Your task to perform on an android device: turn on data saver in the chrome app Image 0: 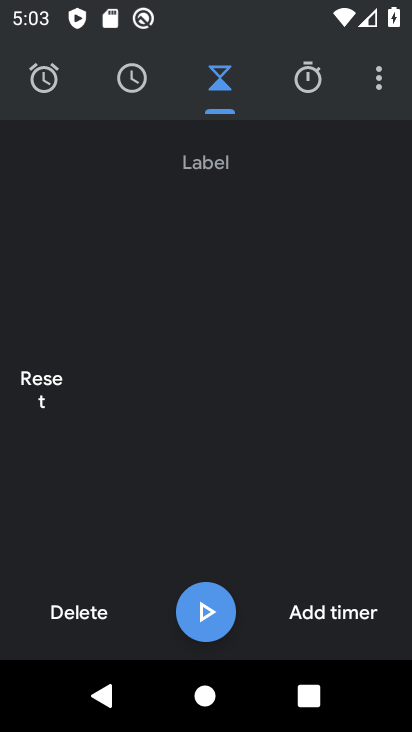
Step 0: press back button
Your task to perform on an android device: turn on data saver in the chrome app Image 1: 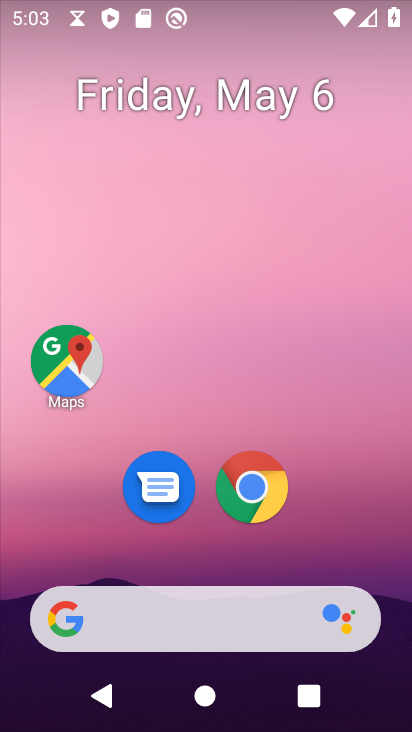
Step 1: click (248, 486)
Your task to perform on an android device: turn on data saver in the chrome app Image 2: 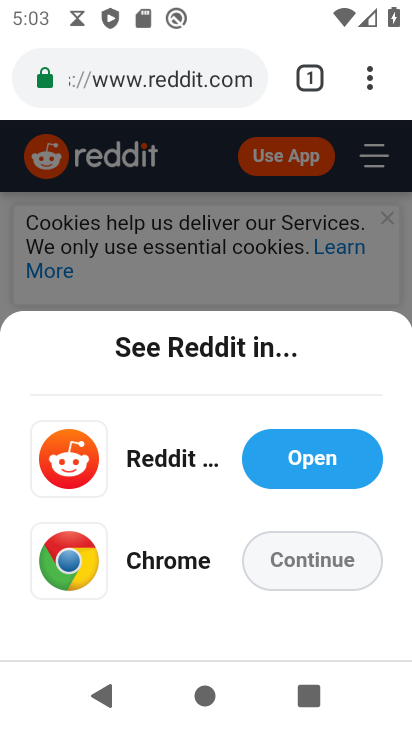
Step 2: click (370, 78)
Your task to perform on an android device: turn on data saver in the chrome app Image 3: 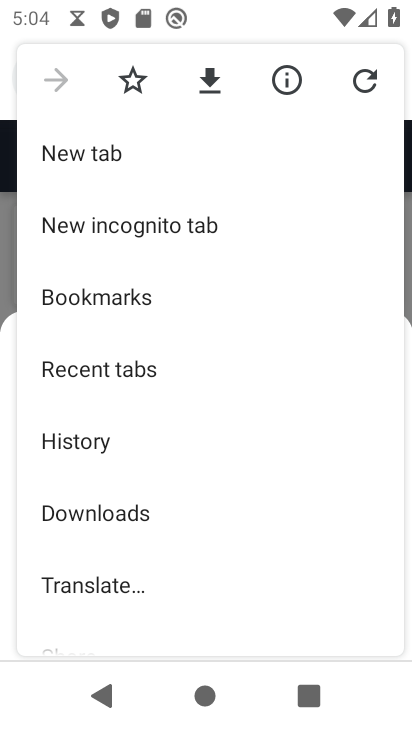
Step 3: drag from (137, 487) to (190, 336)
Your task to perform on an android device: turn on data saver in the chrome app Image 4: 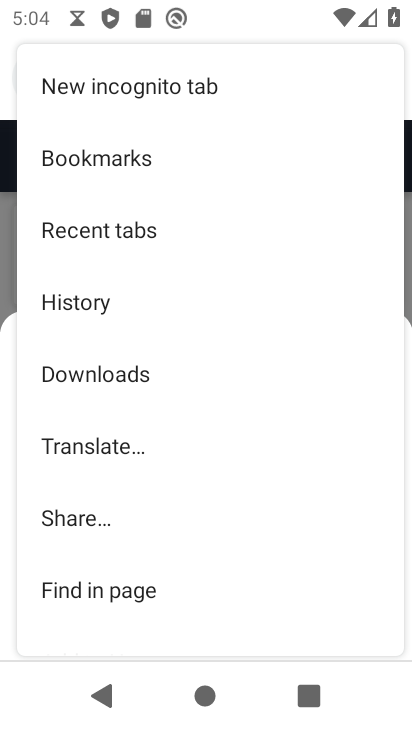
Step 4: drag from (141, 495) to (197, 350)
Your task to perform on an android device: turn on data saver in the chrome app Image 5: 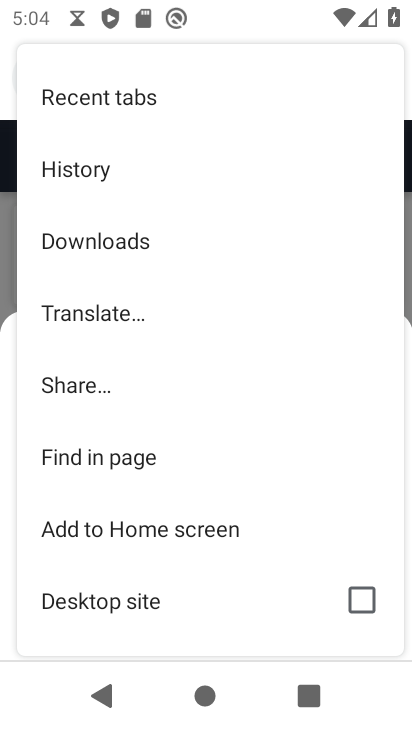
Step 5: drag from (118, 561) to (150, 379)
Your task to perform on an android device: turn on data saver in the chrome app Image 6: 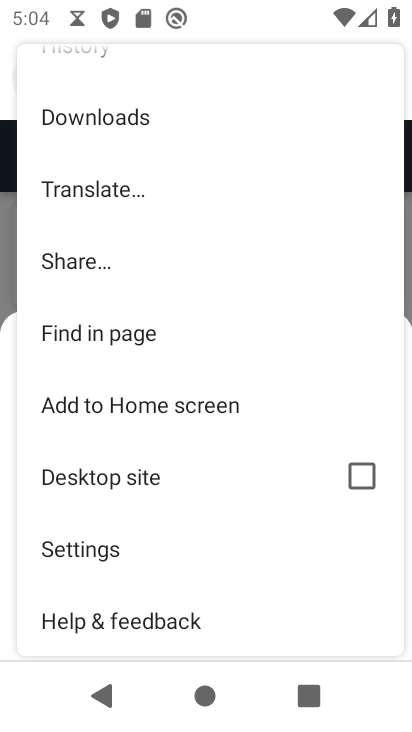
Step 6: drag from (111, 505) to (148, 375)
Your task to perform on an android device: turn on data saver in the chrome app Image 7: 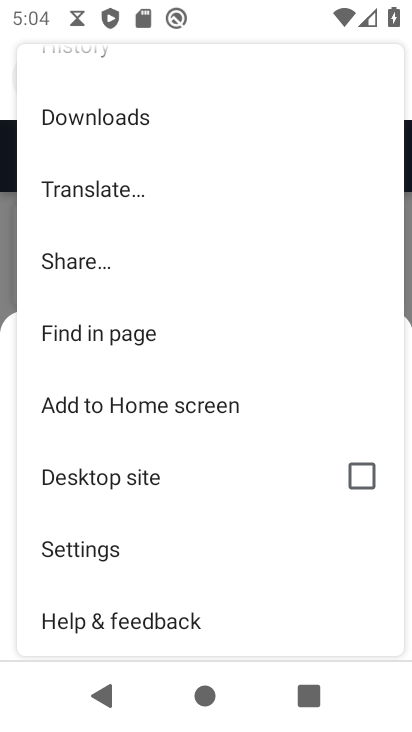
Step 7: click (81, 557)
Your task to perform on an android device: turn on data saver in the chrome app Image 8: 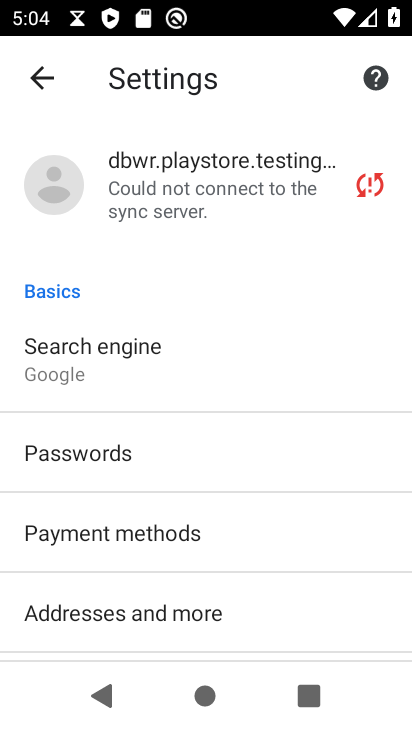
Step 8: drag from (142, 500) to (215, 348)
Your task to perform on an android device: turn on data saver in the chrome app Image 9: 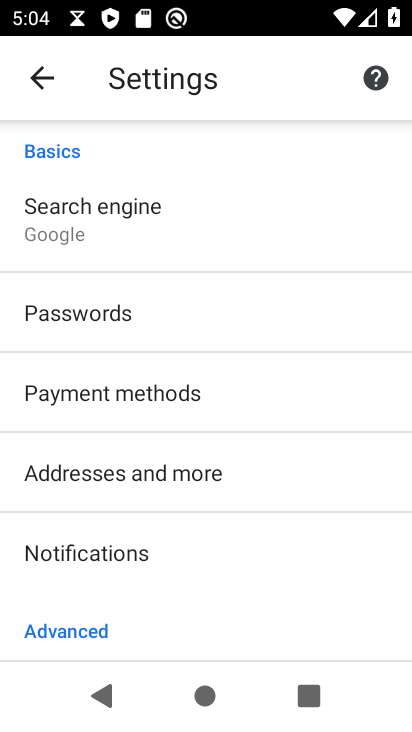
Step 9: drag from (136, 575) to (185, 419)
Your task to perform on an android device: turn on data saver in the chrome app Image 10: 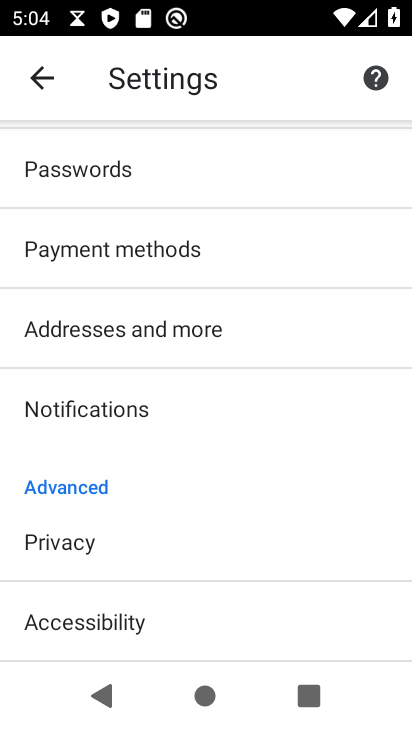
Step 10: drag from (126, 552) to (180, 391)
Your task to perform on an android device: turn on data saver in the chrome app Image 11: 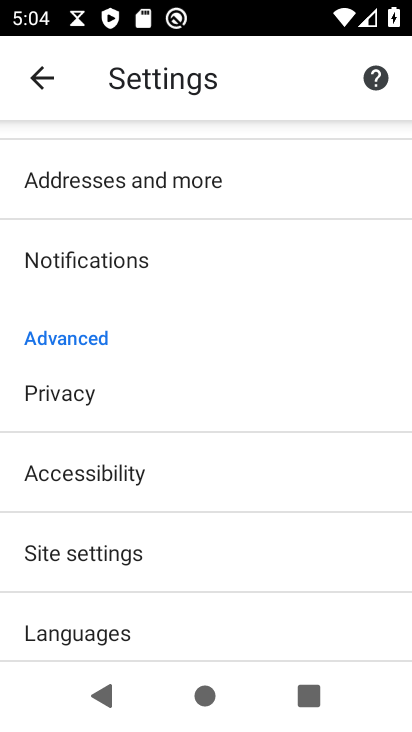
Step 11: drag from (111, 581) to (187, 363)
Your task to perform on an android device: turn on data saver in the chrome app Image 12: 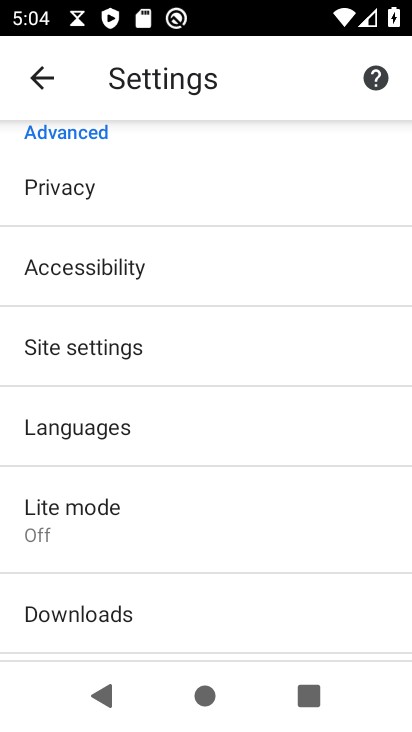
Step 12: click (89, 514)
Your task to perform on an android device: turn on data saver in the chrome app Image 13: 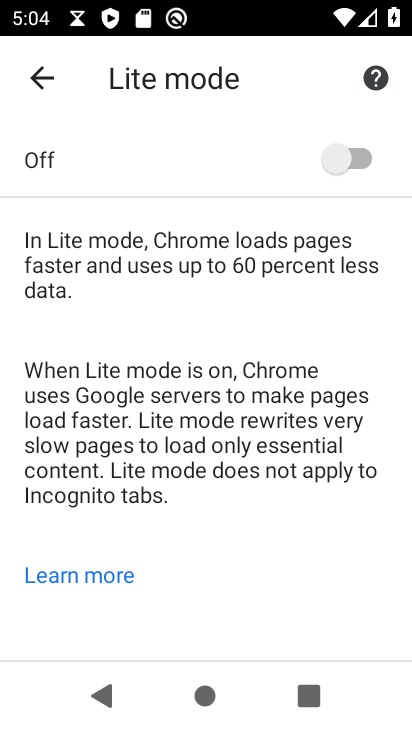
Step 13: click (349, 161)
Your task to perform on an android device: turn on data saver in the chrome app Image 14: 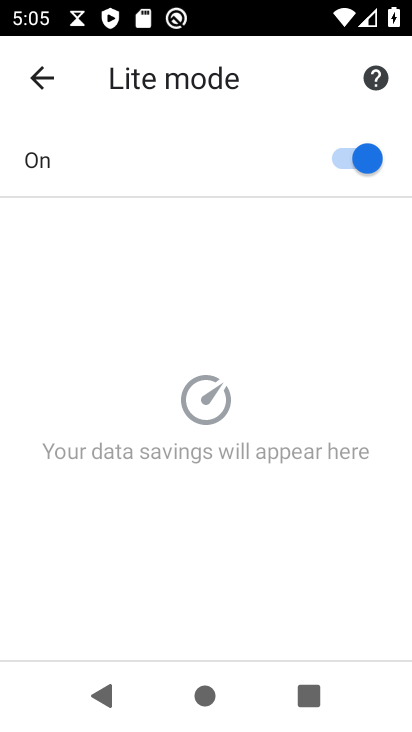
Step 14: task complete